Your task to perform on an android device: Open Wikipedia Image 0: 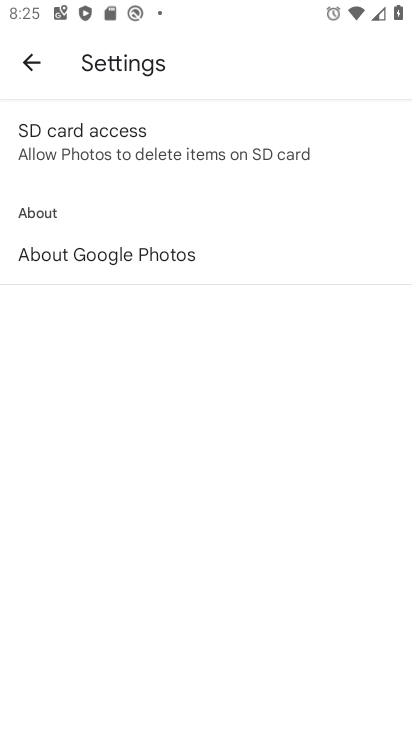
Step 0: press home button
Your task to perform on an android device: Open Wikipedia Image 1: 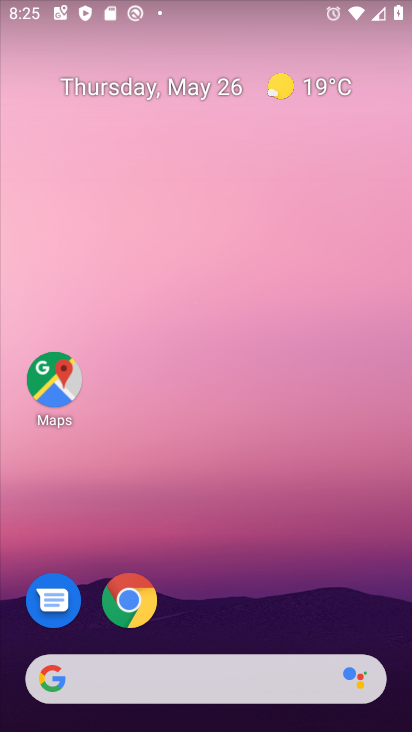
Step 1: click (55, 684)
Your task to perform on an android device: Open Wikipedia Image 2: 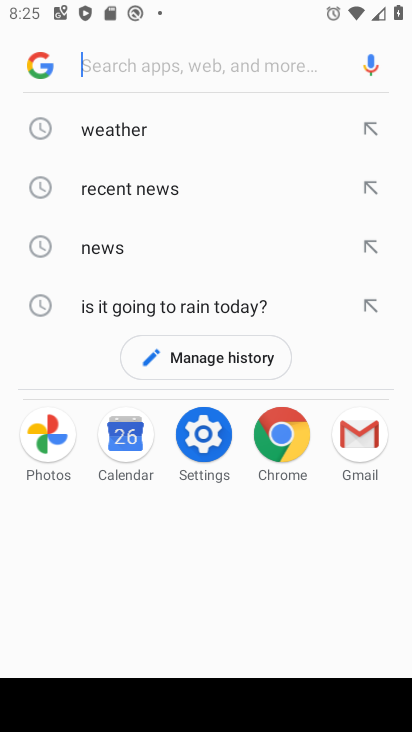
Step 2: type "Wikipedia"
Your task to perform on an android device: Open Wikipedia Image 3: 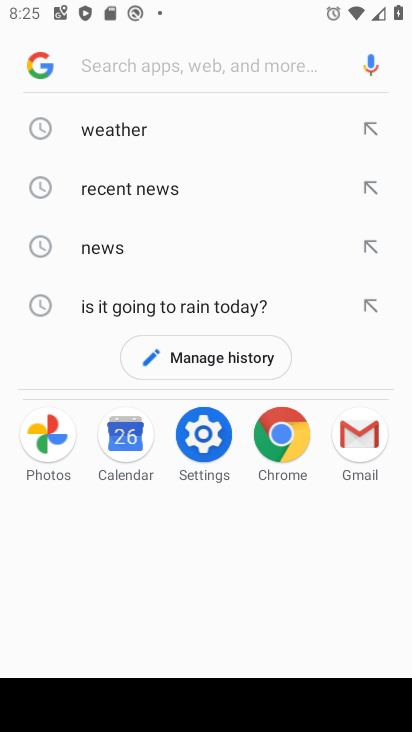
Step 3: click (153, 67)
Your task to perform on an android device: Open Wikipedia Image 4: 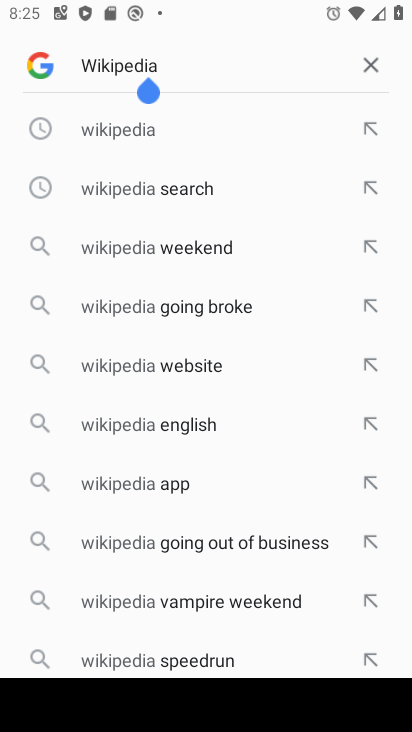
Step 4: click (116, 131)
Your task to perform on an android device: Open Wikipedia Image 5: 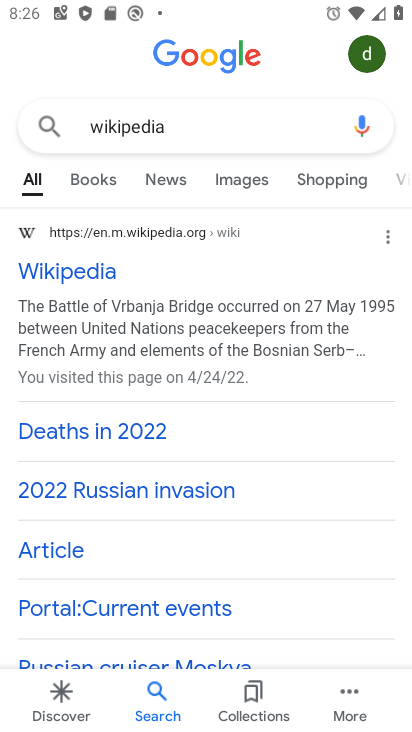
Step 5: click (64, 273)
Your task to perform on an android device: Open Wikipedia Image 6: 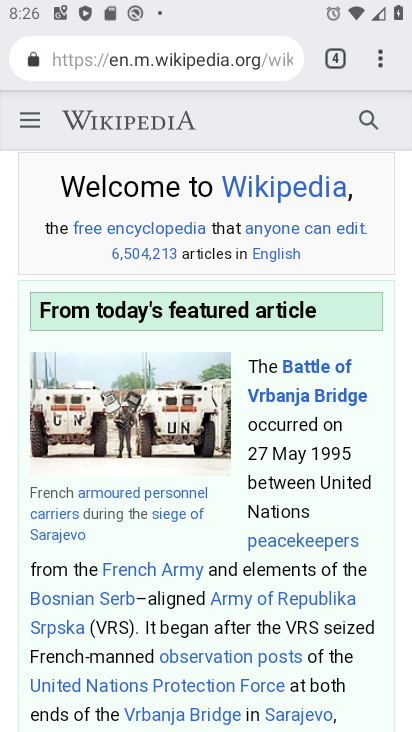
Step 6: task complete